Your task to perform on an android device: move a message to another label in the gmail app Image 0: 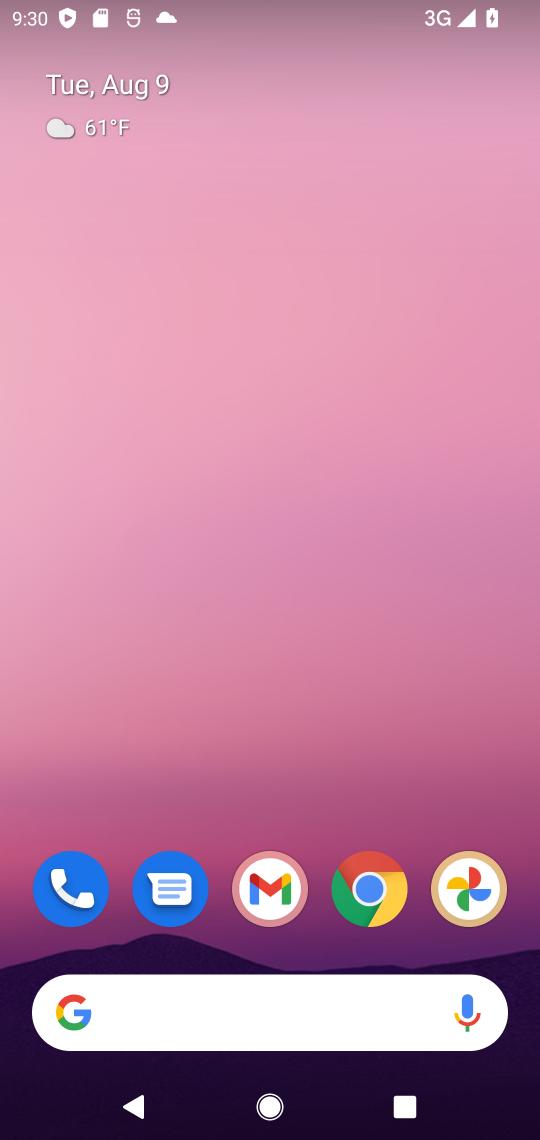
Step 0: drag from (353, 791) to (389, 89)
Your task to perform on an android device: move a message to another label in the gmail app Image 1: 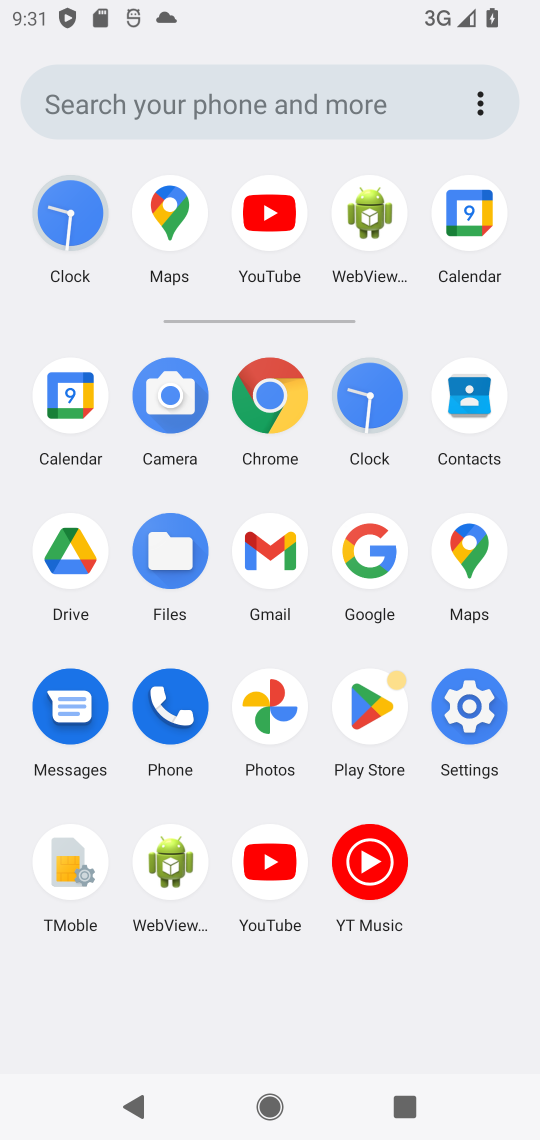
Step 1: click (264, 554)
Your task to perform on an android device: move a message to another label in the gmail app Image 2: 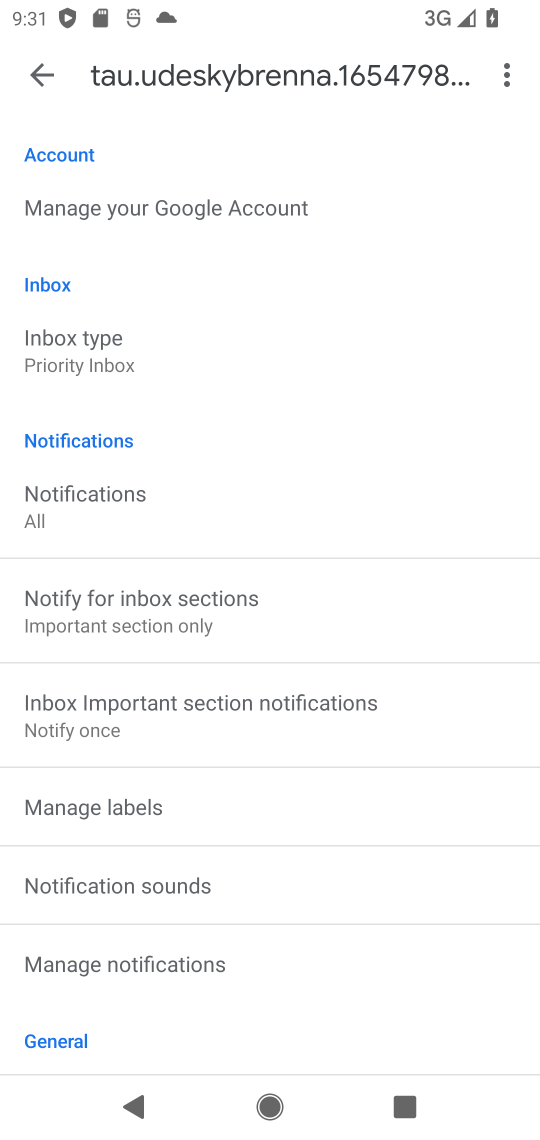
Step 2: click (40, 76)
Your task to perform on an android device: move a message to another label in the gmail app Image 3: 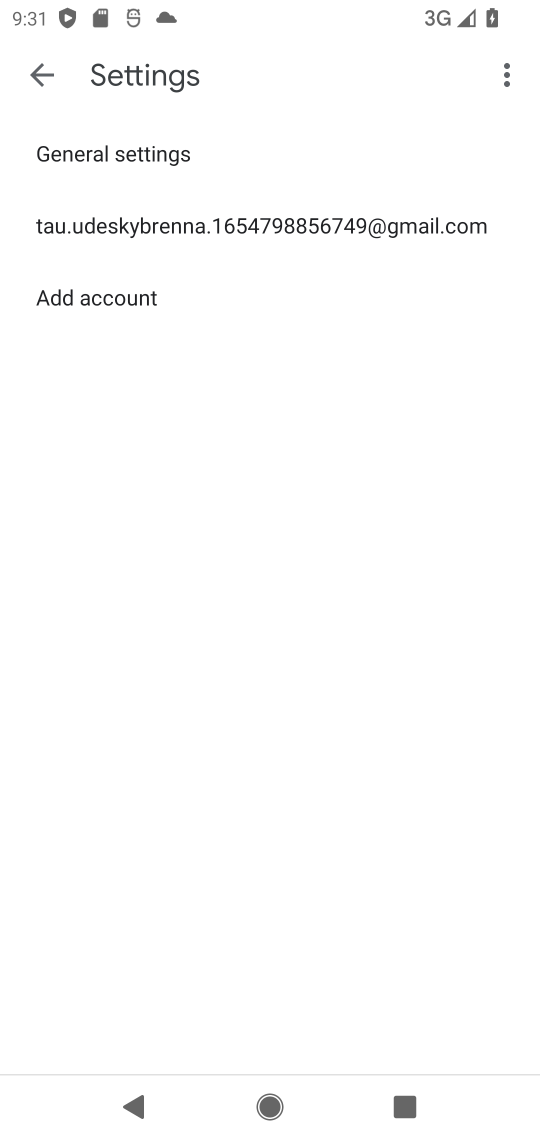
Step 3: click (51, 84)
Your task to perform on an android device: move a message to another label in the gmail app Image 4: 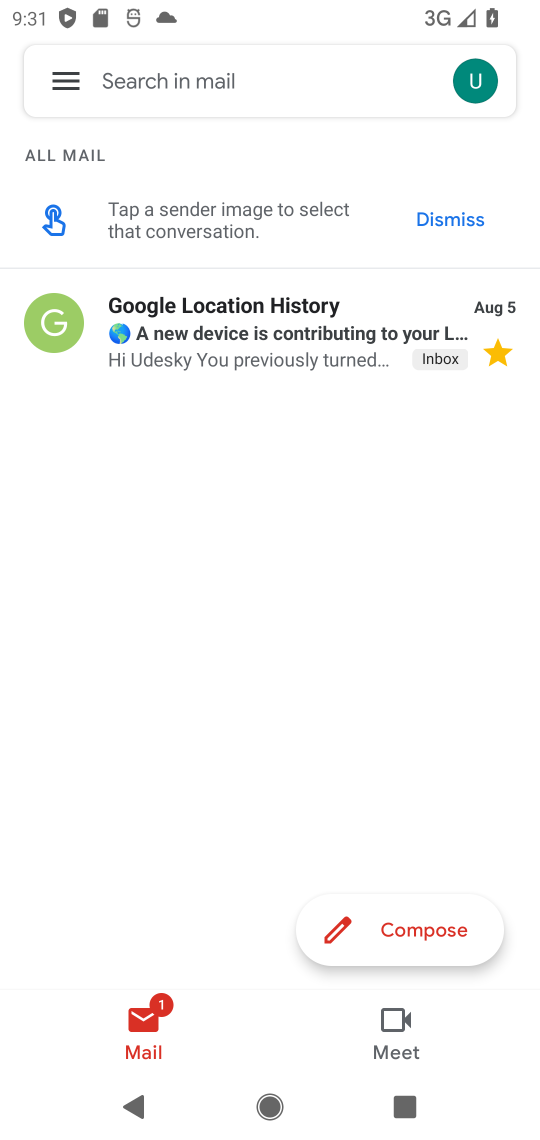
Step 4: click (301, 318)
Your task to perform on an android device: move a message to another label in the gmail app Image 5: 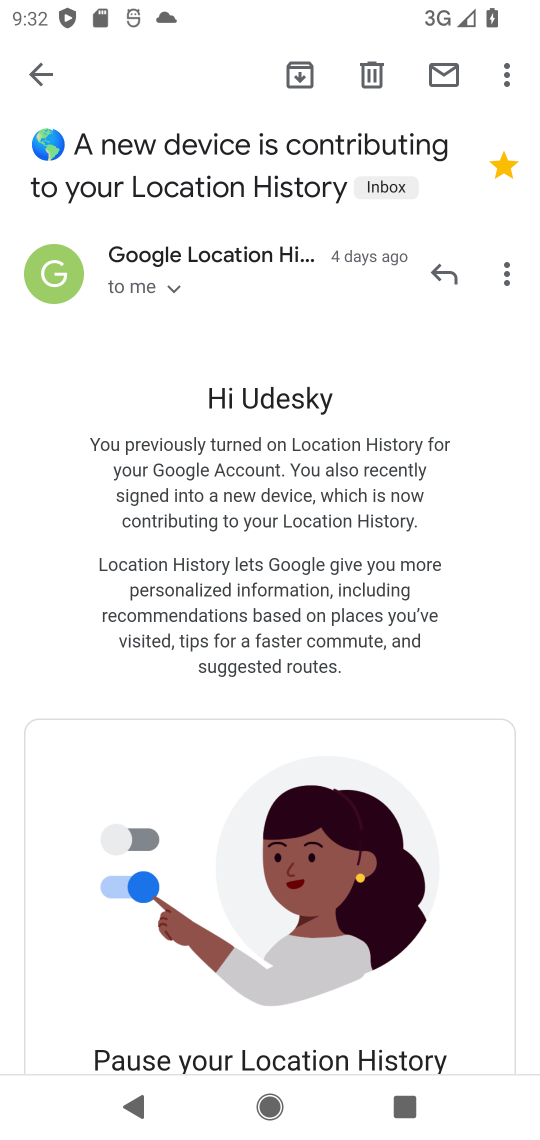
Step 5: click (505, 167)
Your task to perform on an android device: move a message to another label in the gmail app Image 6: 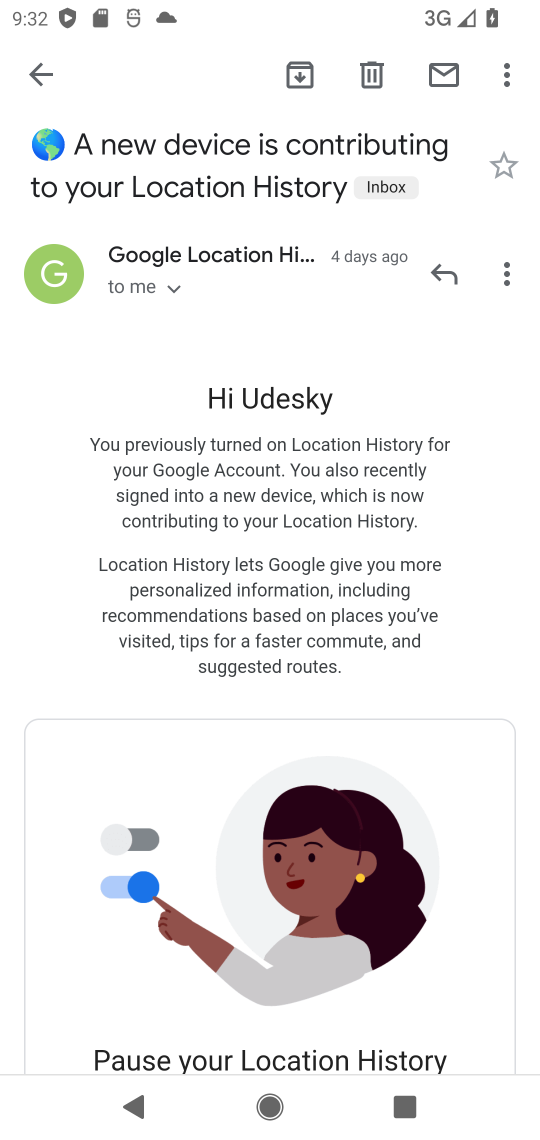
Step 6: task complete